Your task to perform on an android device: delete location history Image 0: 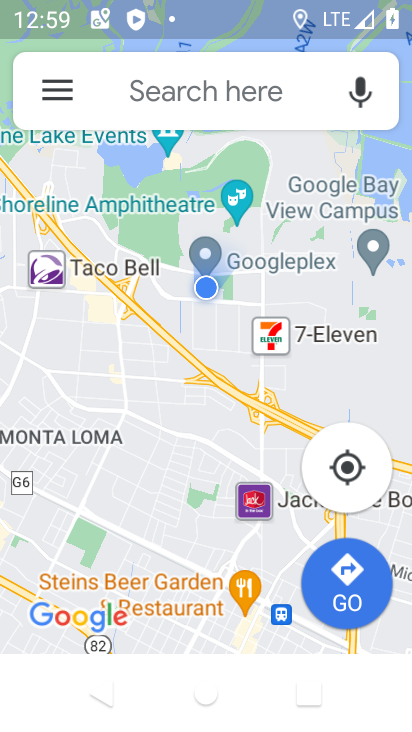
Step 0: click (58, 93)
Your task to perform on an android device: delete location history Image 1: 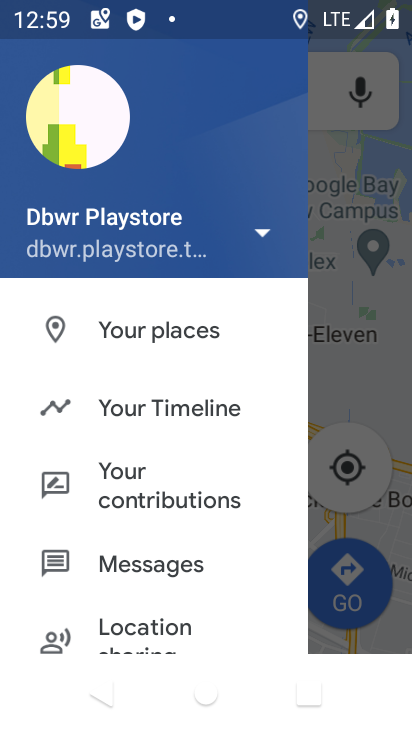
Step 1: drag from (137, 528) to (157, 401)
Your task to perform on an android device: delete location history Image 2: 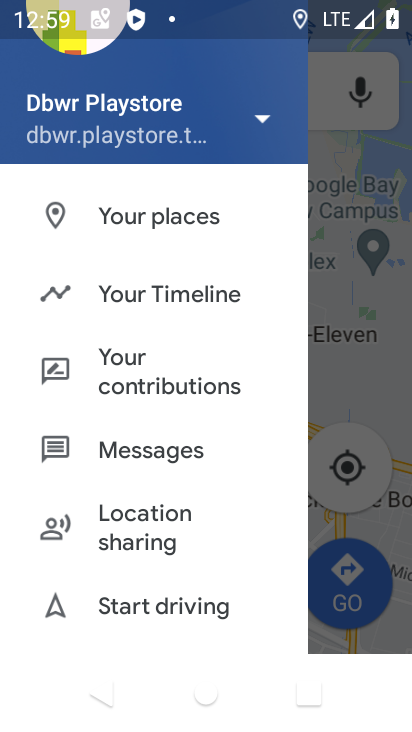
Step 2: drag from (133, 469) to (140, 399)
Your task to perform on an android device: delete location history Image 3: 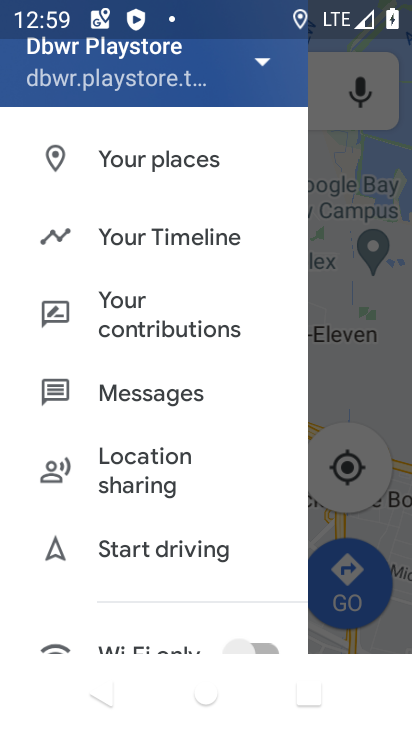
Step 3: drag from (112, 521) to (127, 421)
Your task to perform on an android device: delete location history Image 4: 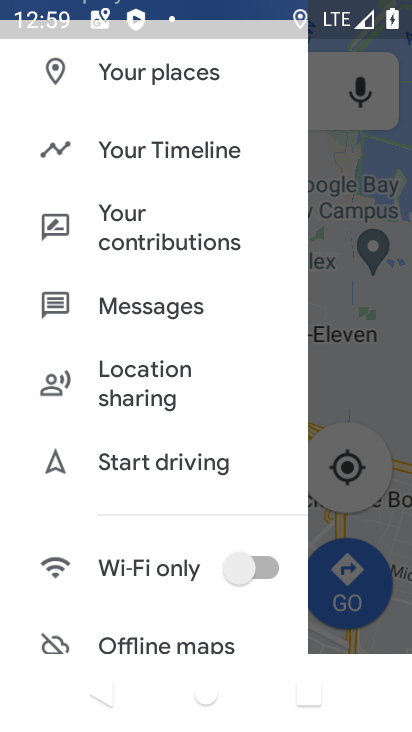
Step 4: drag from (116, 494) to (162, 414)
Your task to perform on an android device: delete location history Image 5: 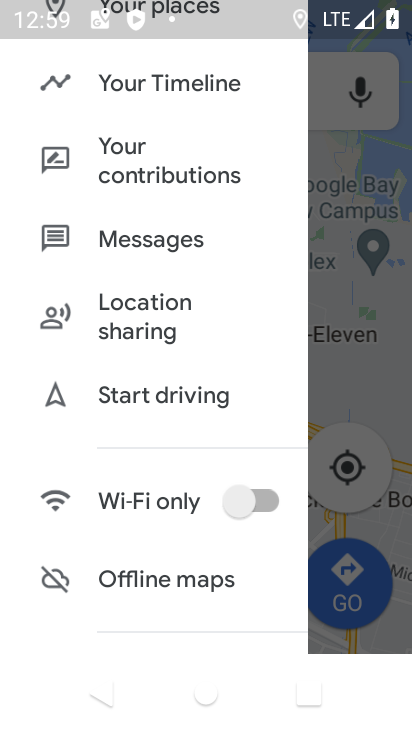
Step 5: drag from (131, 482) to (180, 408)
Your task to perform on an android device: delete location history Image 6: 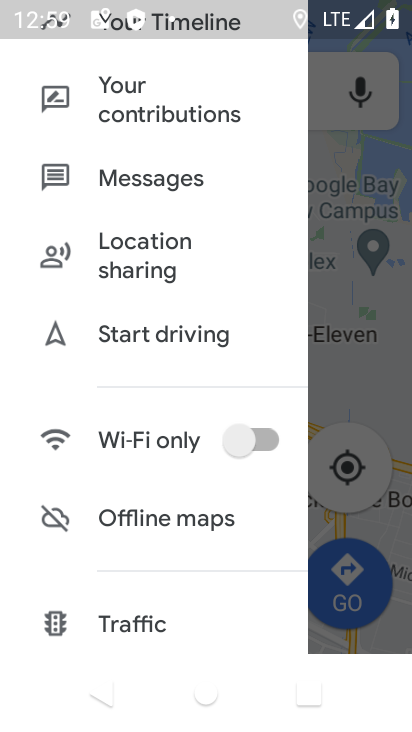
Step 6: drag from (121, 540) to (180, 419)
Your task to perform on an android device: delete location history Image 7: 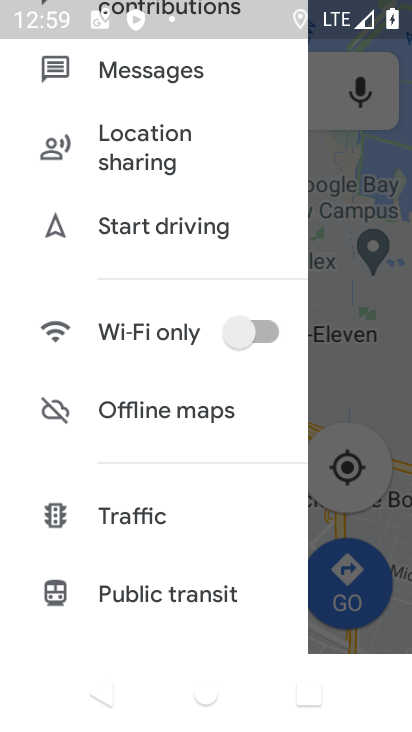
Step 7: drag from (158, 476) to (169, 394)
Your task to perform on an android device: delete location history Image 8: 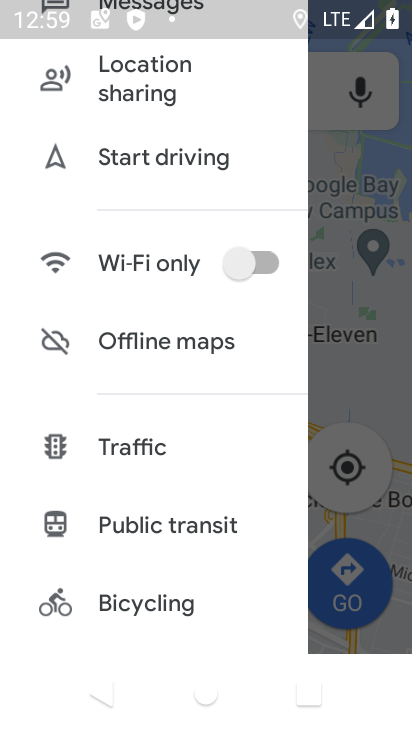
Step 8: drag from (125, 498) to (142, 408)
Your task to perform on an android device: delete location history Image 9: 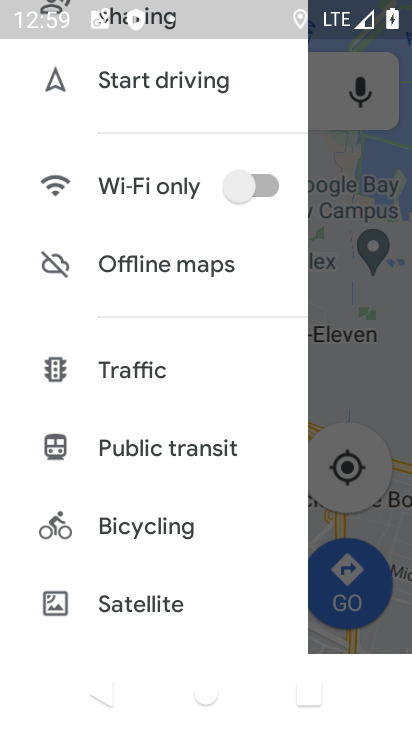
Step 9: drag from (123, 486) to (159, 376)
Your task to perform on an android device: delete location history Image 10: 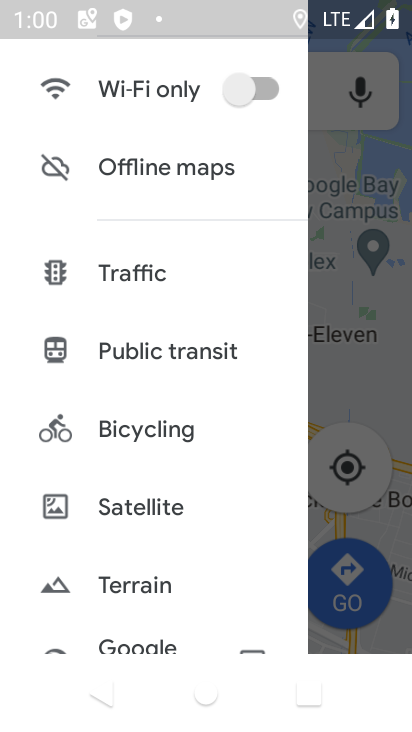
Step 10: drag from (146, 478) to (199, 379)
Your task to perform on an android device: delete location history Image 11: 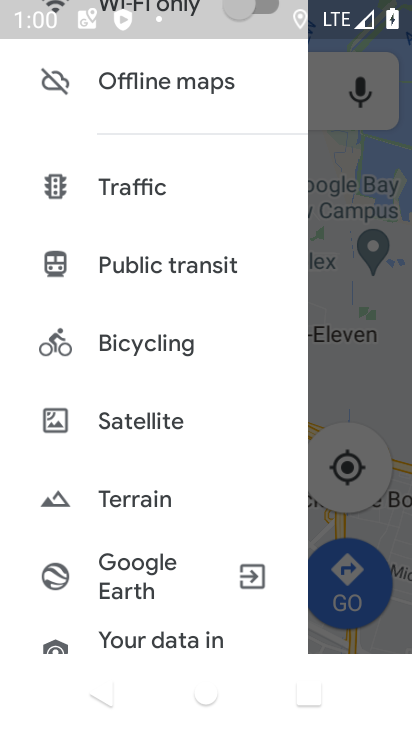
Step 11: drag from (153, 468) to (212, 390)
Your task to perform on an android device: delete location history Image 12: 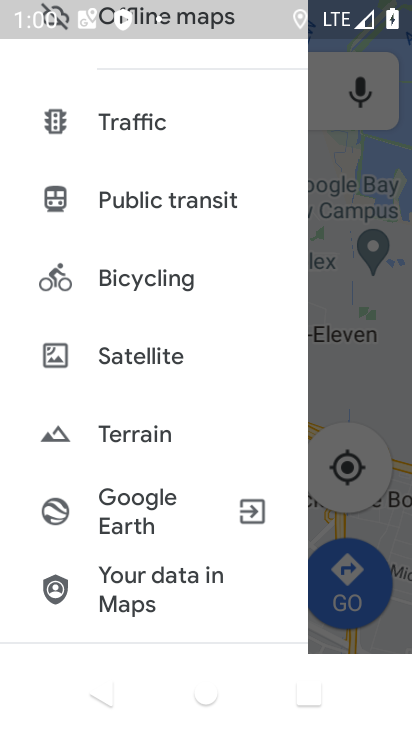
Step 12: drag from (147, 525) to (210, 399)
Your task to perform on an android device: delete location history Image 13: 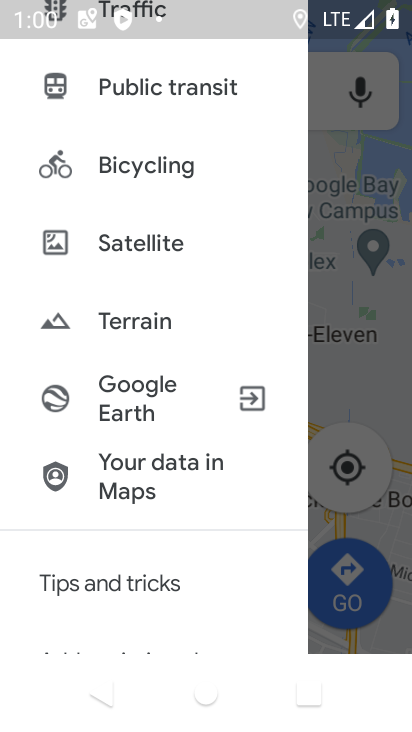
Step 13: drag from (131, 547) to (231, 380)
Your task to perform on an android device: delete location history Image 14: 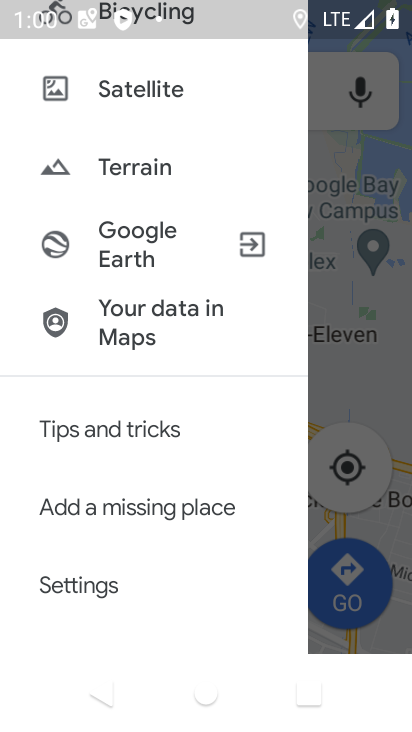
Step 14: click (89, 591)
Your task to perform on an android device: delete location history Image 15: 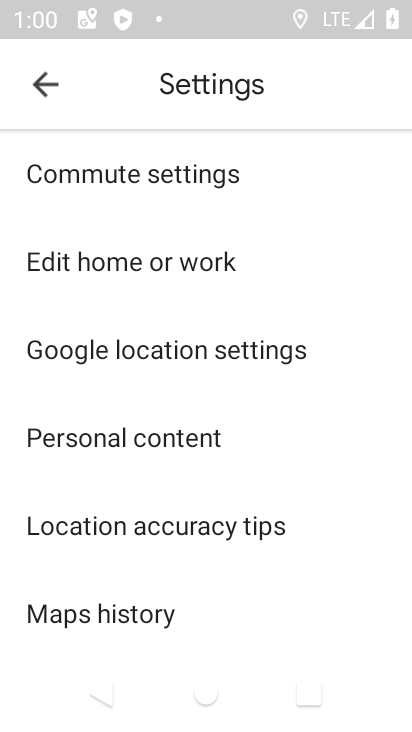
Step 15: click (147, 441)
Your task to perform on an android device: delete location history Image 16: 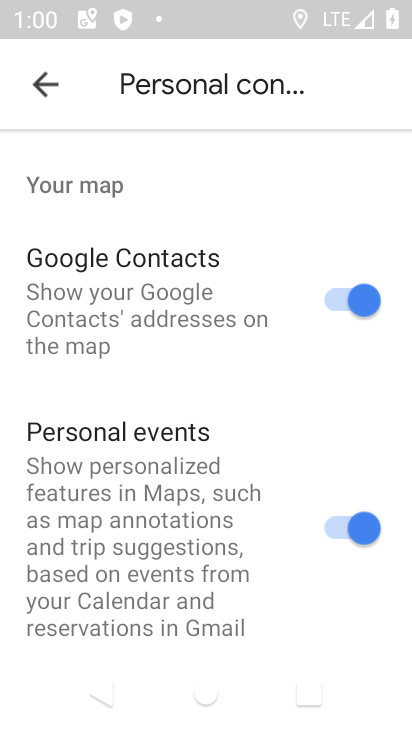
Step 16: drag from (175, 389) to (254, 263)
Your task to perform on an android device: delete location history Image 17: 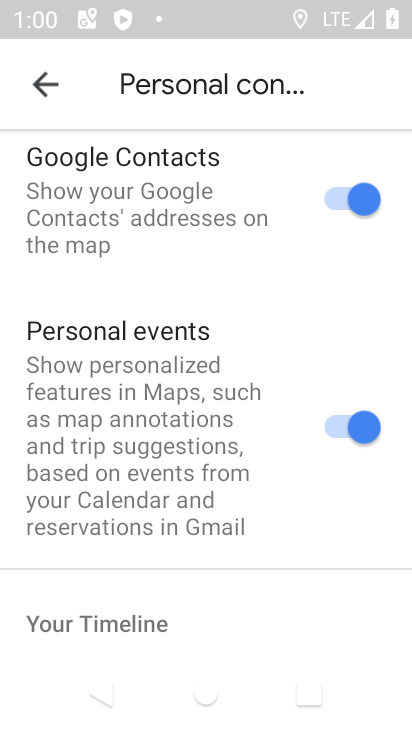
Step 17: drag from (146, 565) to (228, 426)
Your task to perform on an android device: delete location history Image 18: 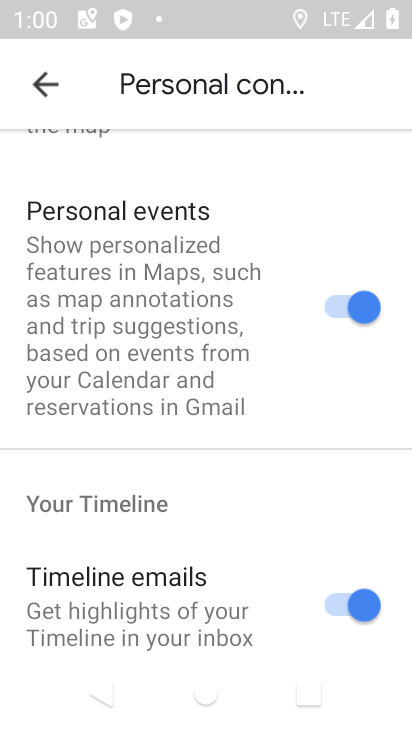
Step 18: drag from (182, 507) to (272, 377)
Your task to perform on an android device: delete location history Image 19: 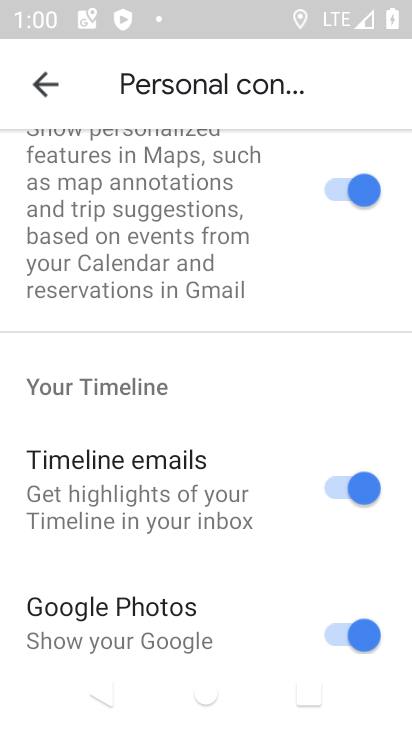
Step 19: drag from (166, 556) to (274, 419)
Your task to perform on an android device: delete location history Image 20: 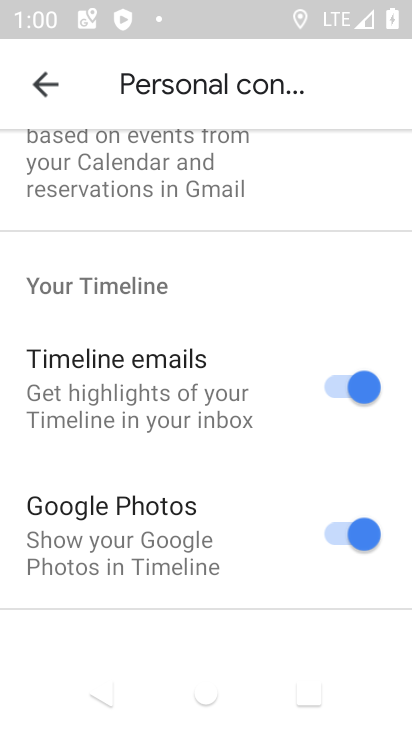
Step 20: drag from (210, 524) to (255, 448)
Your task to perform on an android device: delete location history Image 21: 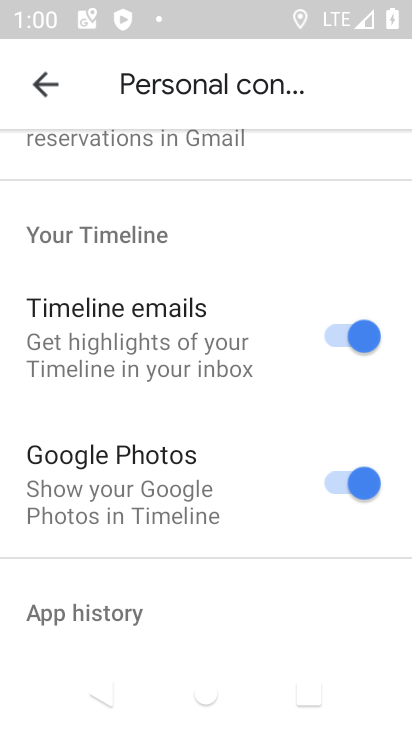
Step 21: drag from (187, 602) to (229, 479)
Your task to perform on an android device: delete location history Image 22: 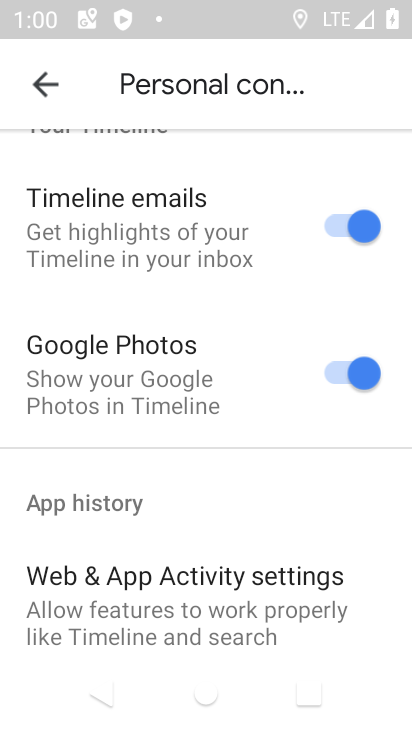
Step 22: drag from (204, 522) to (263, 353)
Your task to perform on an android device: delete location history Image 23: 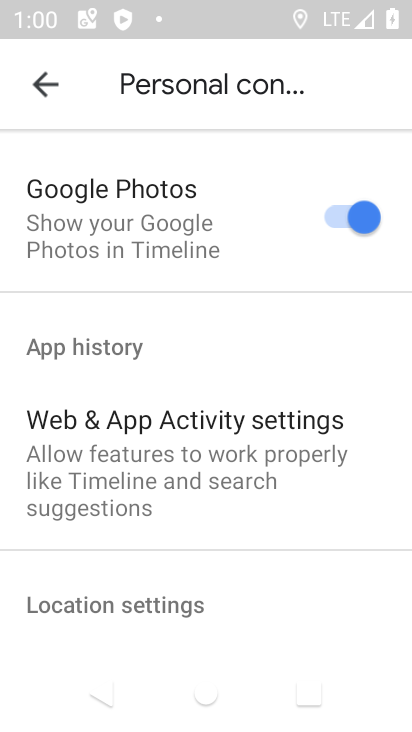
Step 23: drag from (236, 537) to (298, 377)
Your task to perform on an android device: delete location history Image 24: 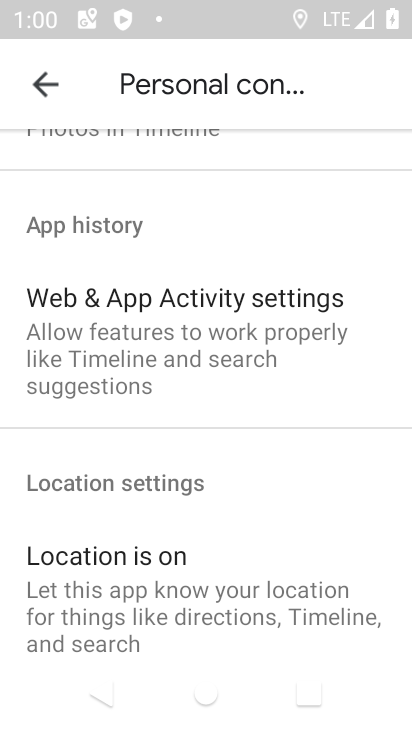
Step 24: drag from (214, 519) to (285, 348)
Your task to perform on an android device: delete location history Image 25: 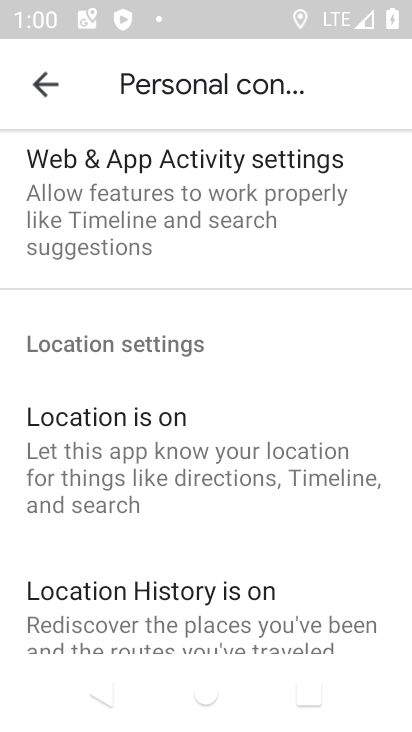
Step 25: drag from (184, 549) to (244, 441)
Your task to perform on an android device: delete location history Image 26: 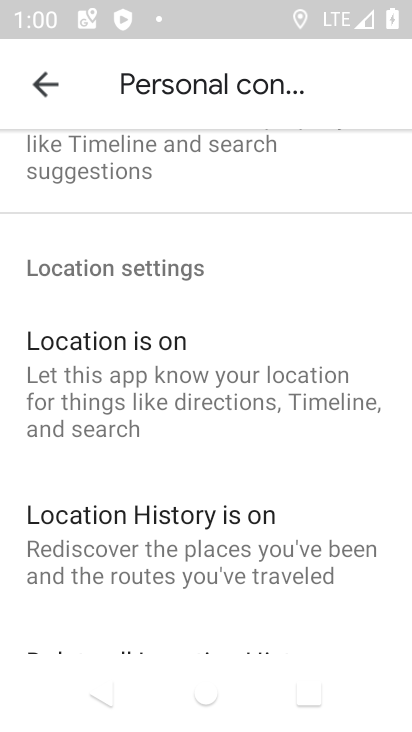
Step 26: drag from (167, 601) to (267, 426)
Your task to perform on an android device: delete location history Image 27: 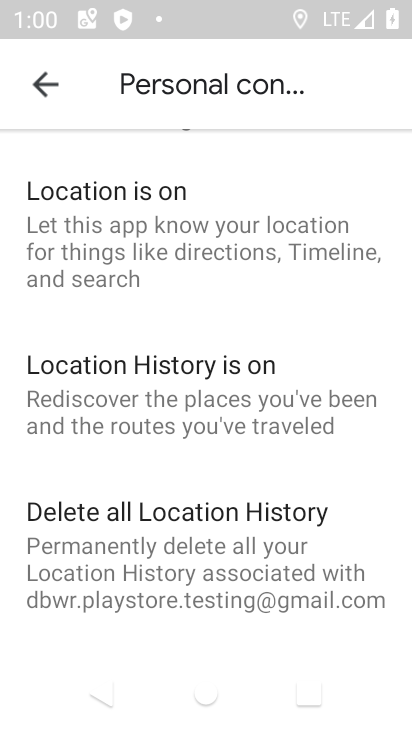
Step 27: drag from (193, 458) to (275, 344)
Your task to perform on an android device: delete location history Image 28: 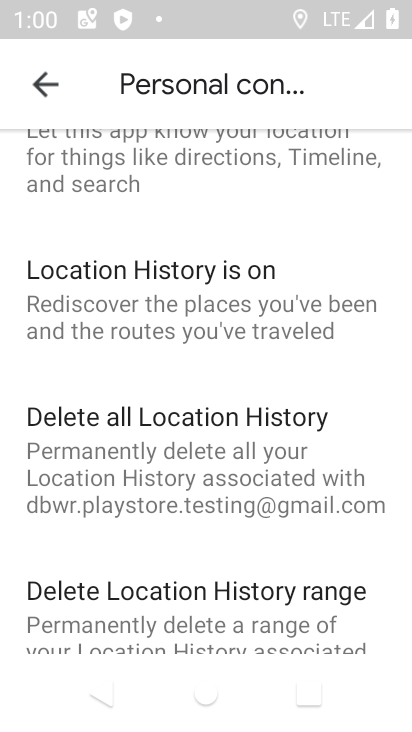
Step 28: click (228, 414)
Your task to perform on an android device: delete location history Image 29: 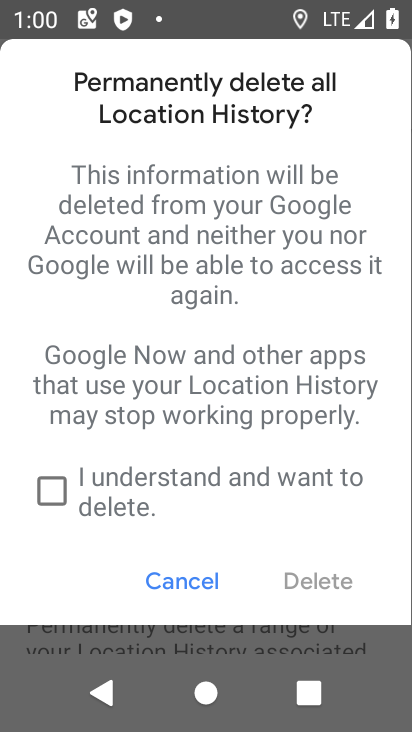
Step 29: click (42, 492)
Your task to perform on an android device: delete location history Image 30: 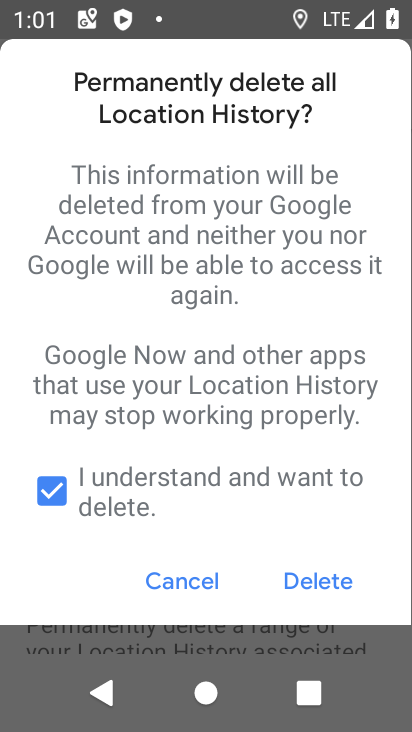
Step 30: click (330, 584)
Your task to perform on an android device: delete location history Image 31: 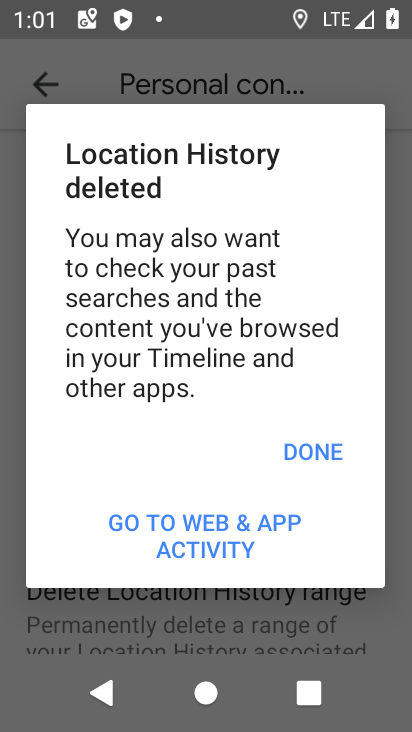
Step 31: click (293, 445)
Your task to perform on an android device: delete location history Image 32: 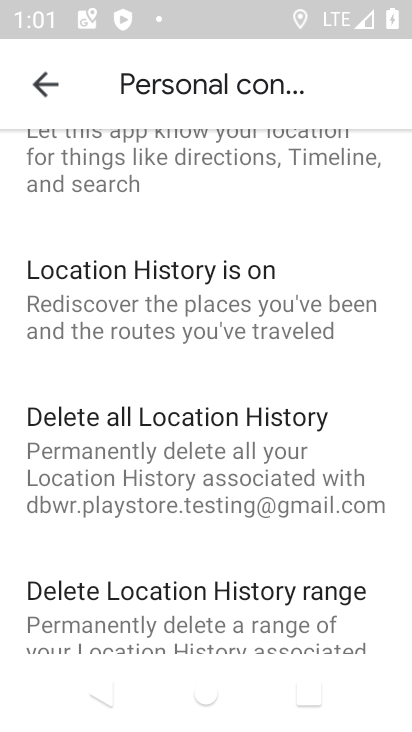
Step 32: task complete